Your task to perform on an android device: toggle priority inbox in the gmail app Image 0: 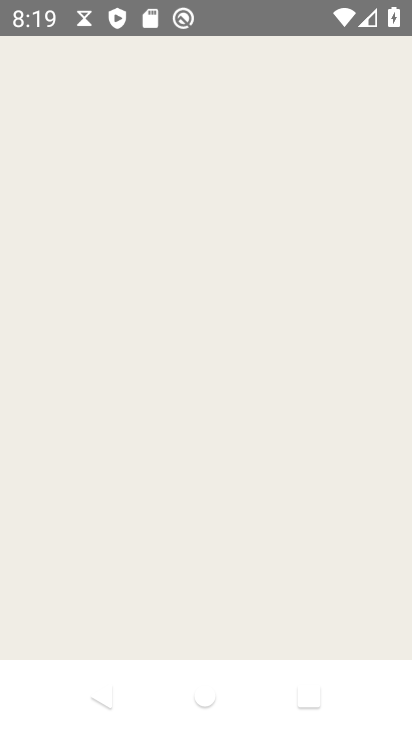
Step 0: press home button
Your task to perform on an android device: toggle priority inbox in the gmail app Image 1: 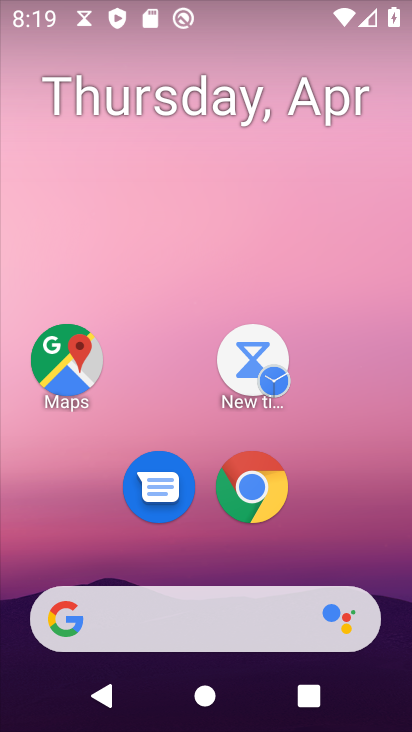
Step 1: drag from (355, 429) to (319, 145)
Your task to perform on an android device: toggle priority inbox in the gmail app Image 2: 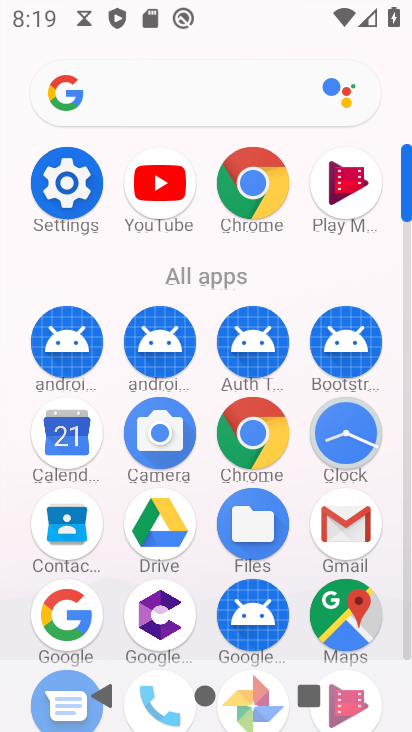
Step 2: click (336, 517)
Your task to perform on an android device: toggle priority inbox in the gmail app Image 3: 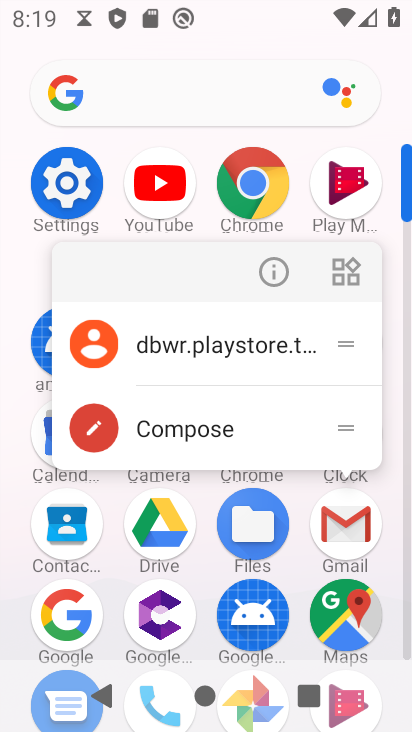
Step 3: click (336, 517)
Your task to perform on an android device: toggle priority inbox in the gmail app Image 4: 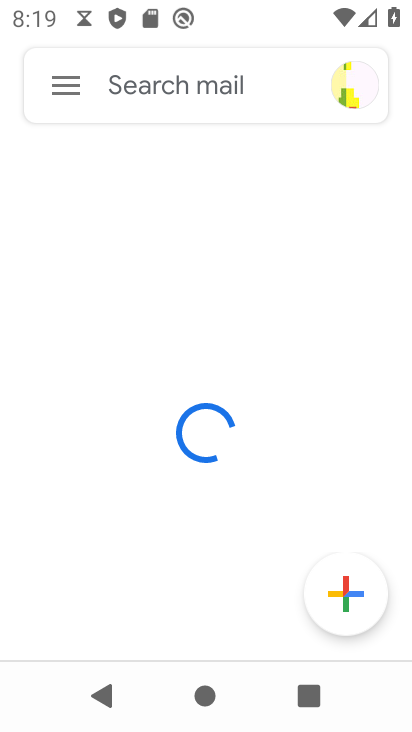
Step 4: click (72, 86)
Your task to perform on an android device: toggle priority inbox in the gmail app Image 5: 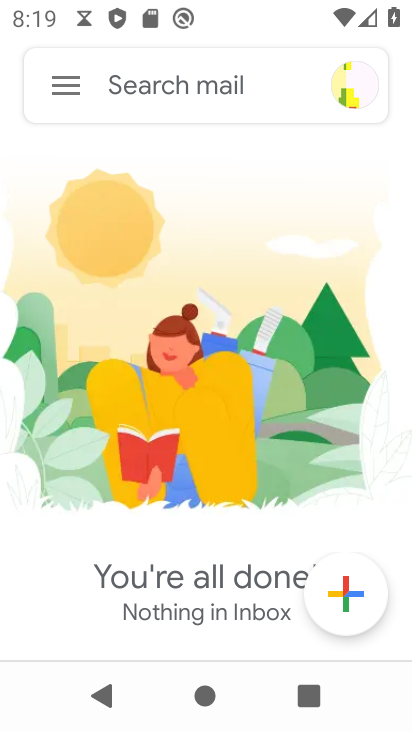
Step 5: click (67, 85)
Your task to perform on an android device: toggle priority inbox in the gmail app Image 6: 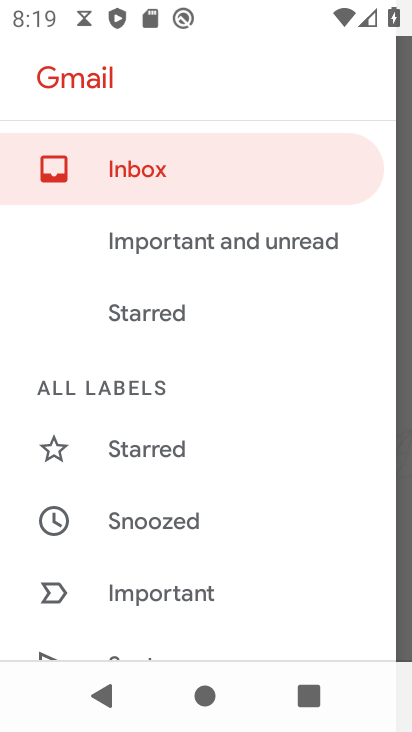
Step 6: drag from (261, 566) to (231, 141)
Your task to perform on an android device: toggle priority inbox in the gmail app Image 7: 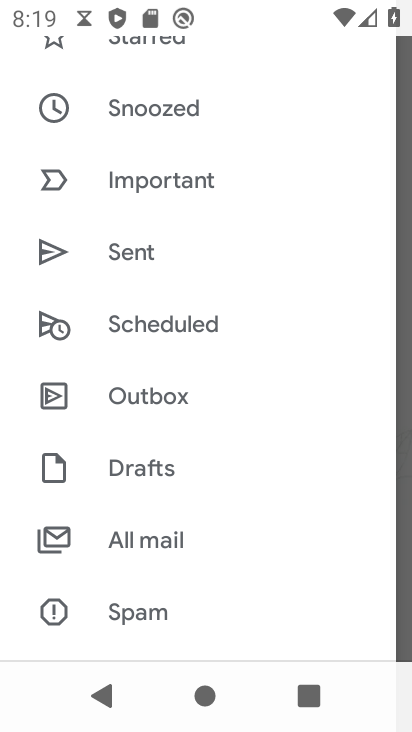
Step 7: drag from (241, 501) to (261, 105)
Your task to perform on an android device: toggle priority inbox in the gmail app Image 8: 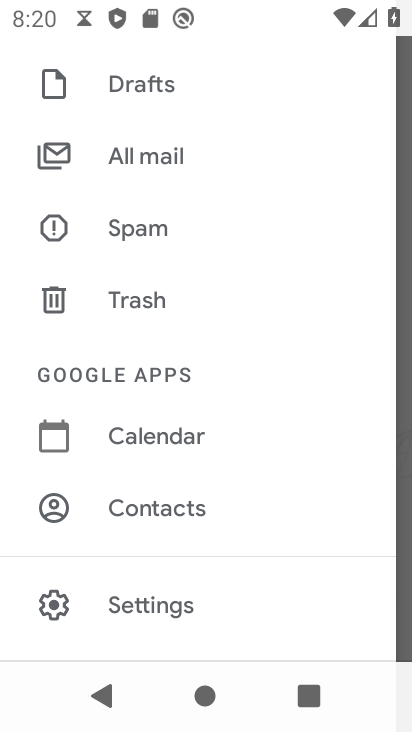
Step 8: click (153, 607)
Your task to perform on an android device: toggle priority inbox in the gmail app Image 9: 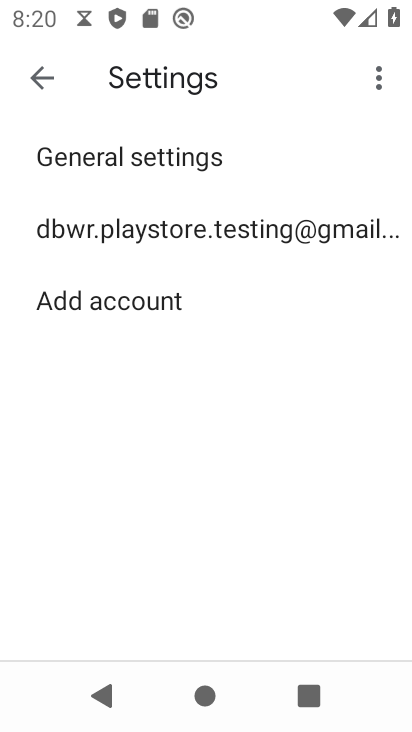
Step 9: click (203, 232)
Your task to perform on an android device: toggle priority inbox in the gmail app Image 10: 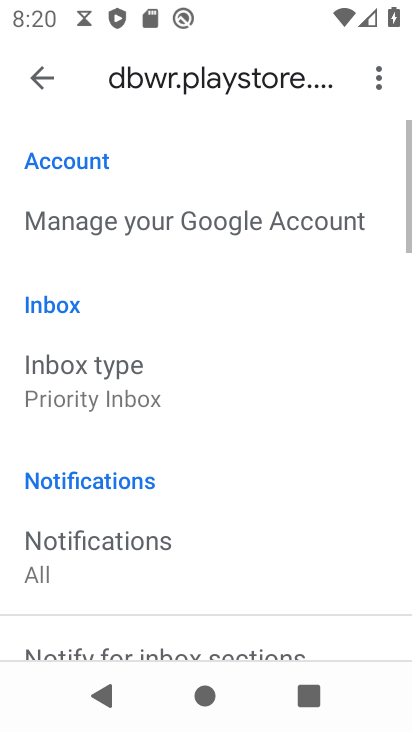
Step 10: click (113, 384)
Your task to perform on an android device: toggle priority inbox in the gmail app Image 11: 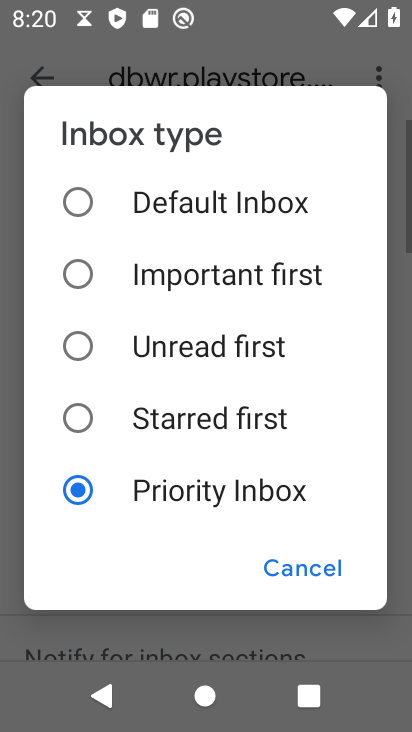
Step 11: click (113, 384)
Your task to perform on an android device: toggle priority inbox in the gmail app Image 12: 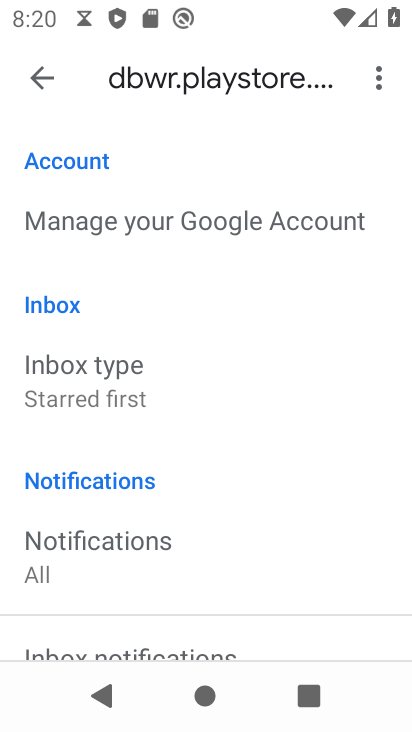
Step 12: task complete